Your task to perform on an android device: allow notifications from all sites in the chrome app Image 0: 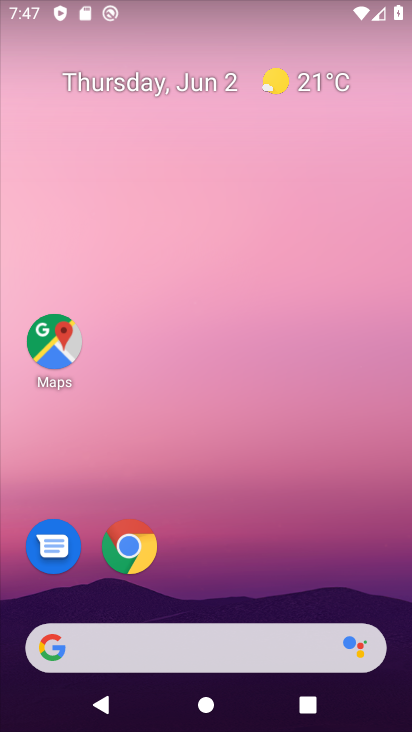
Step 0: click (140, 547)
Your task to perform on an android device: allow notifications from all sites in the chrome app Image 1: 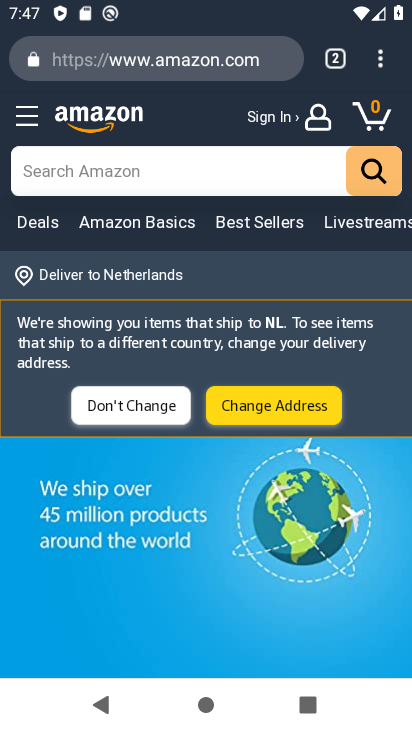
Step 1: click (381, 61)
Your task to perform on an android device: allow notifications from all sites in the chrome app Image 2: 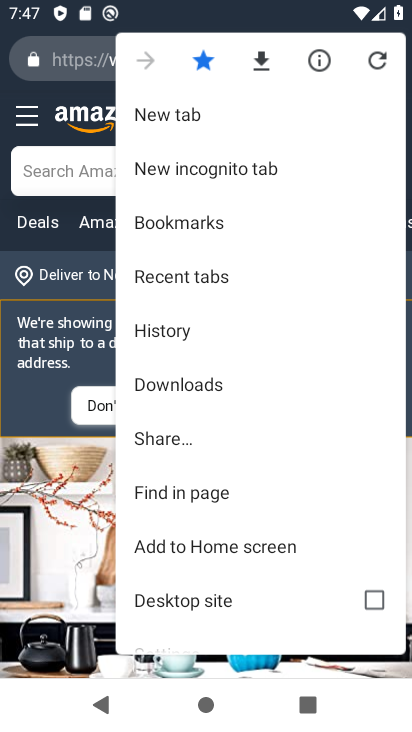
Step 2: drag from (287, 500) to (289, 186)
Your task to perform on an android device: allow notifications from all sites in the chrome app Image 3: 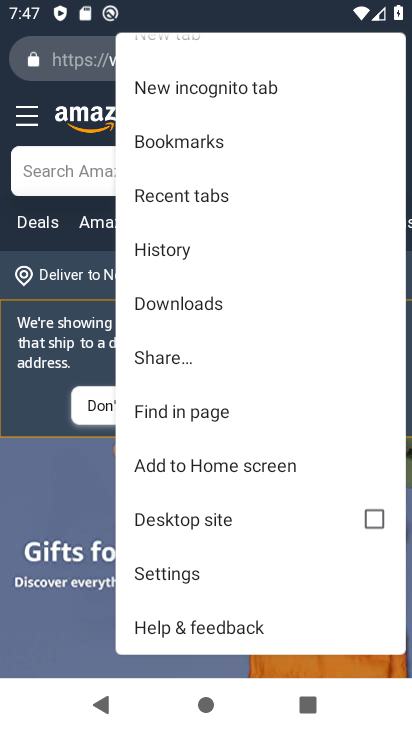
Step 3: click (211, 575)
Your task to perform on an android device: allow notifications from all sites in the chrome app Image 4: 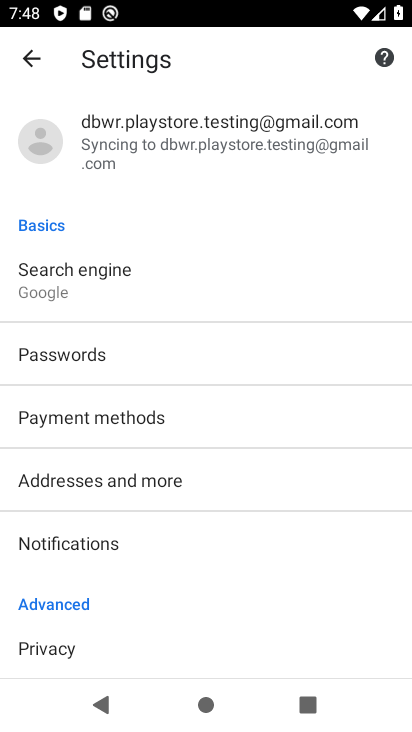
Step 4: click (217, 540)
Your task to perform on an android device: allow notifications from all sites in the chrome app Image 5: 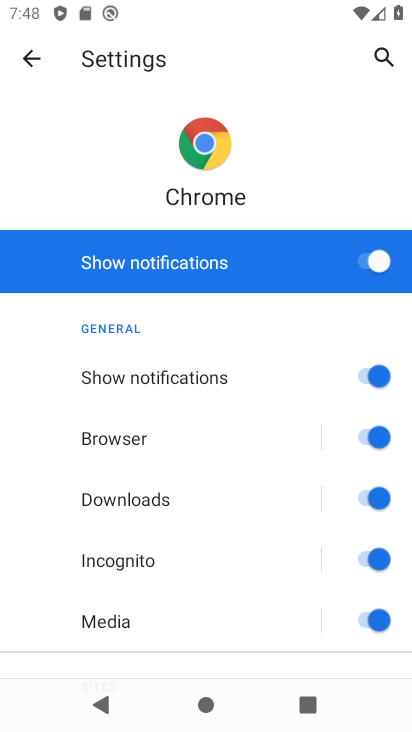
Step 5: task complete